Your task to perform on an android device: turn off picture-in-picture Image 0: 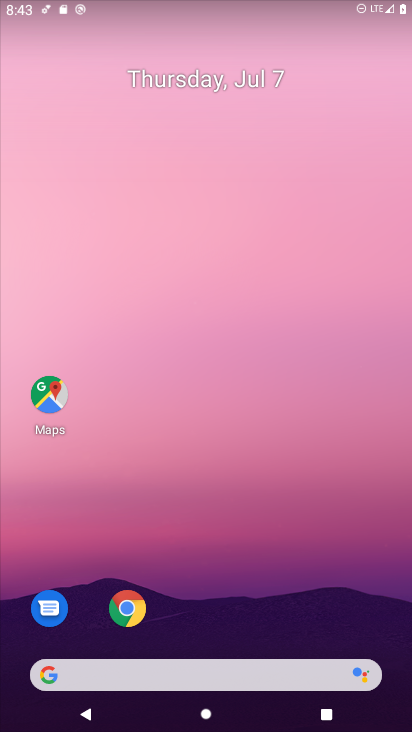
Step 0: drag from (375, 625) to (296, 109)
Your task to perform on an android device: turn off picture-in-picture Image 1: 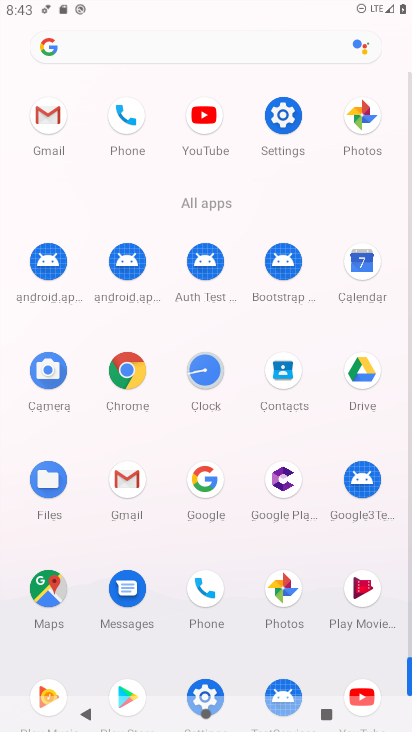
Step 1: click (408, 632)
Your task to perform on an android device: turn off picture-in-picture Image 2: 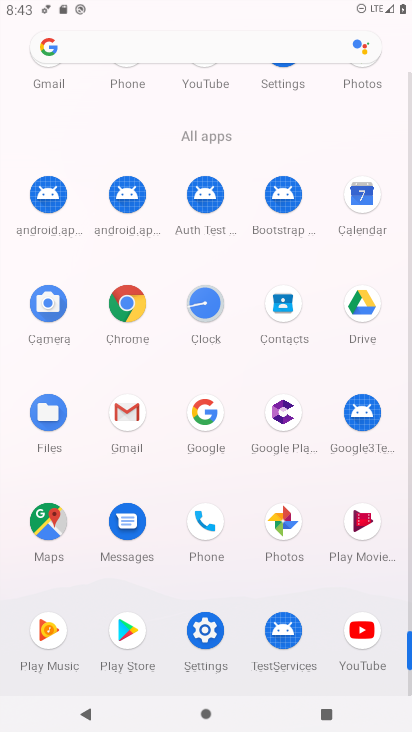
Step 2: click (207, 631)
Your task to perform on an android device: turn off picture-in-picture Image 3: 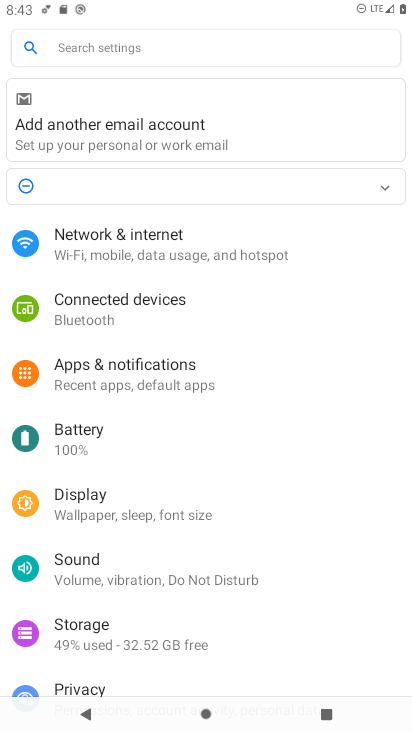
Step 3: click (137, 370)
Your task to perform on an android device: turn off picture-in-picture Image 4: 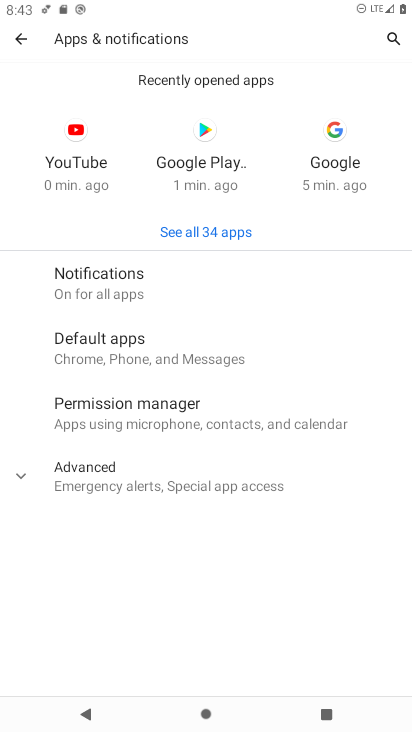
Step 4: click (21, 482)
Your task to perform on an android device: turn off picture-in-picture Image 5: 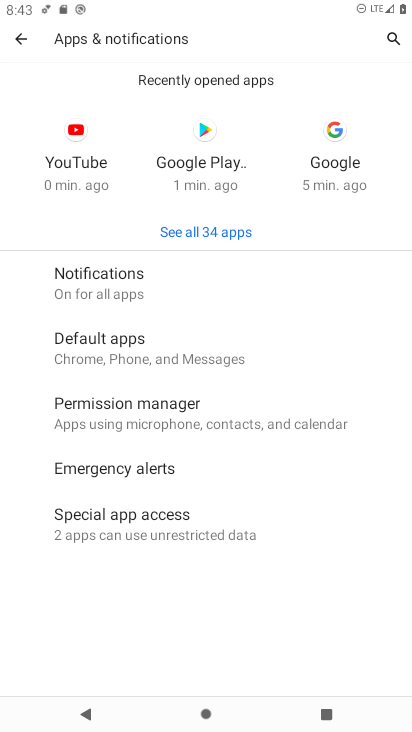
Step 5: click (102, 516)
Your task to perform on an android device: turn off picture-in-picture Image 6: 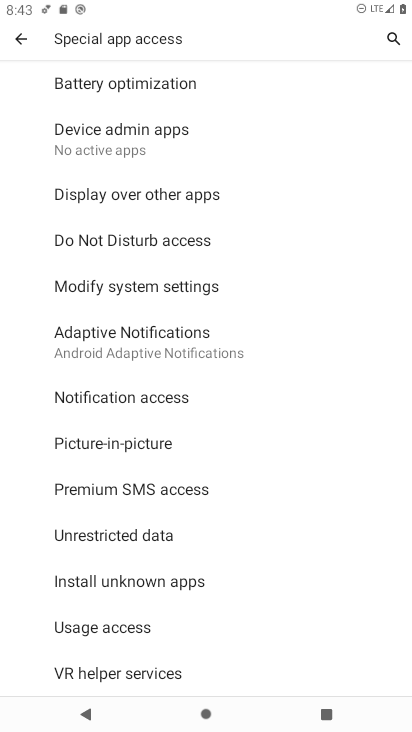
Step 6: click (116, 439)
Your task to perform on an android device: turn off picture-in-picture Image 7: 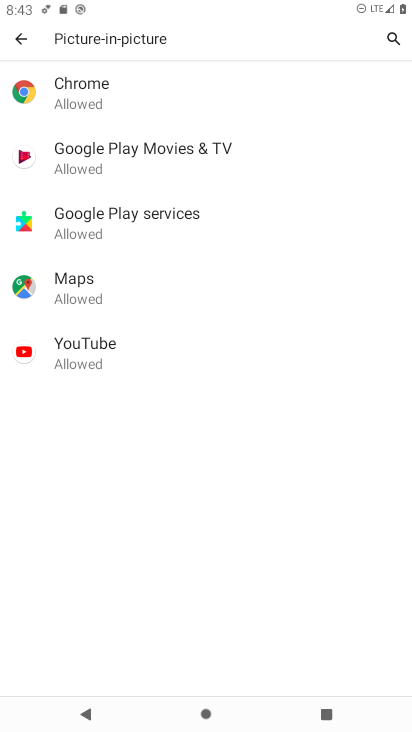
Step 7: click (70, 344)
Your task to perform on an android device: turn off picture-in-picture Image 8: 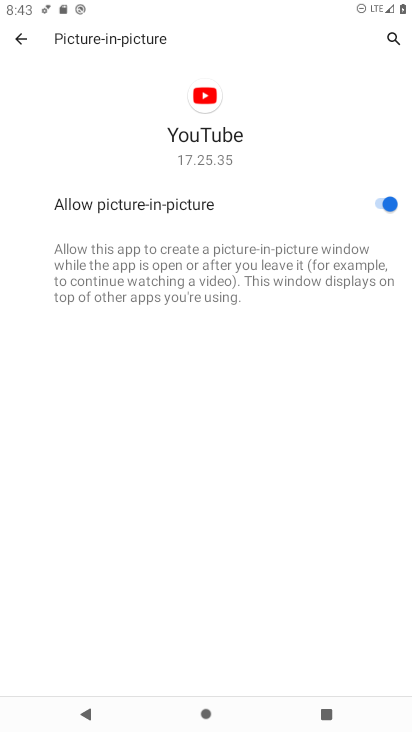
Step 8: click (378, 200)
Your task to perform on an android device: turn off picture-in-picture Image 9: 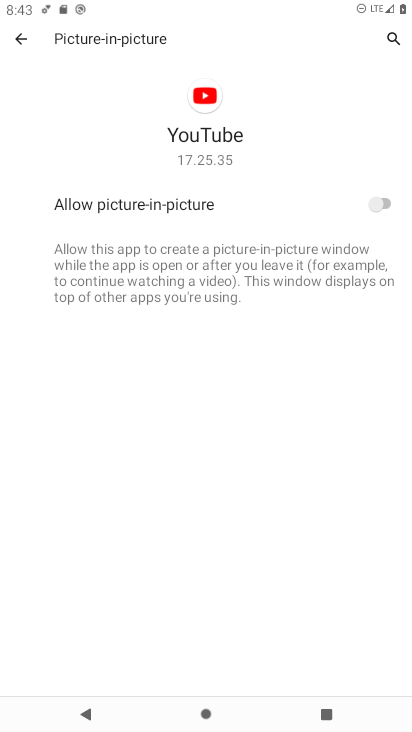
Step 9: task complete